Your task to perform on an android device: Open battery settings Image 0: 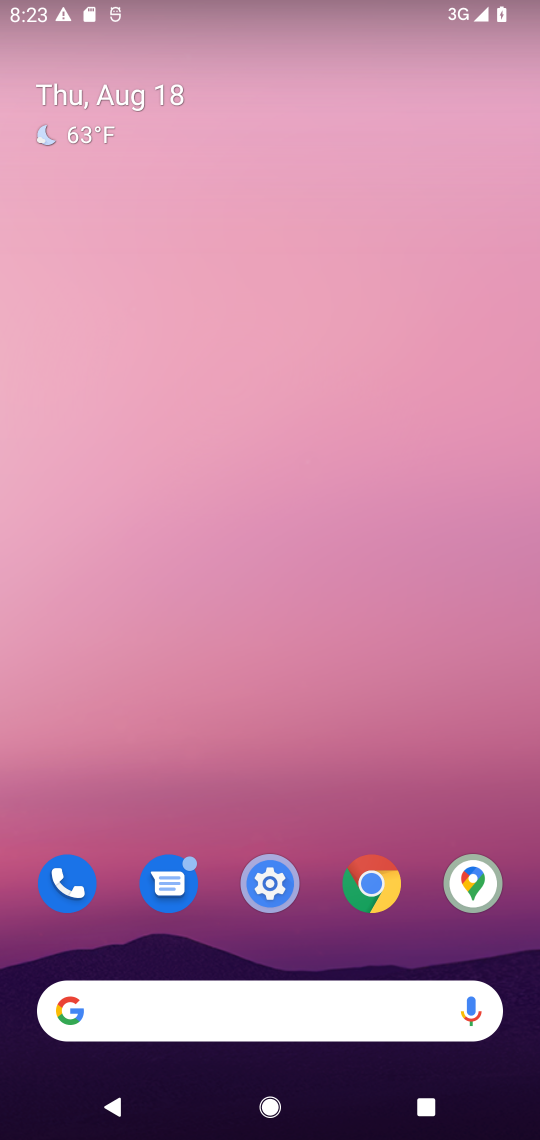
Step 0: drag from (69, 1128) to (373, 394)
Your task to perform on an android device: Open battery settings Image 1: 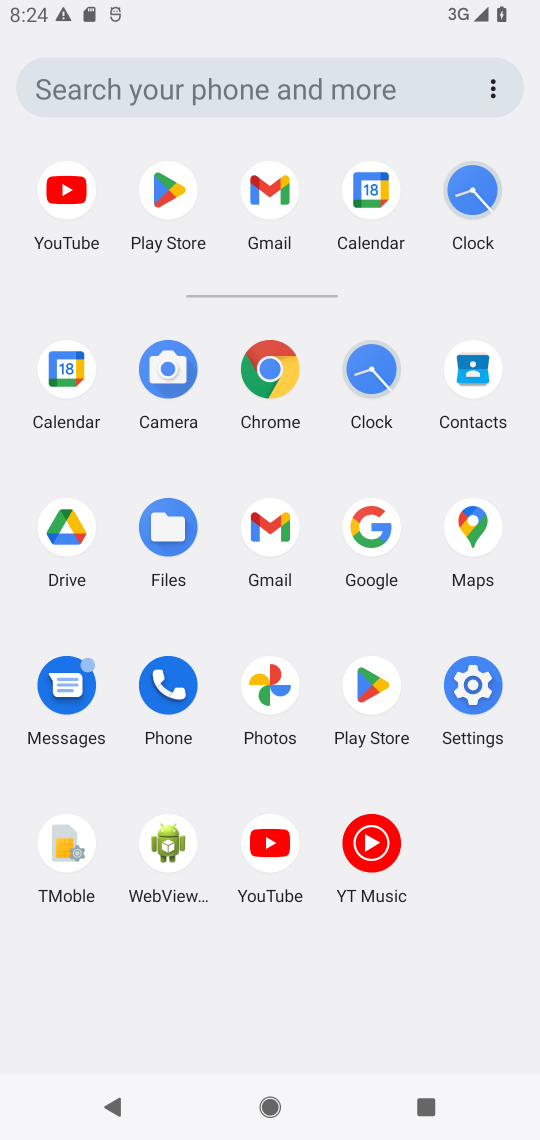
Step 1: click (474, 706)
Your task to perform on an android device: Open battery settings Image 2: 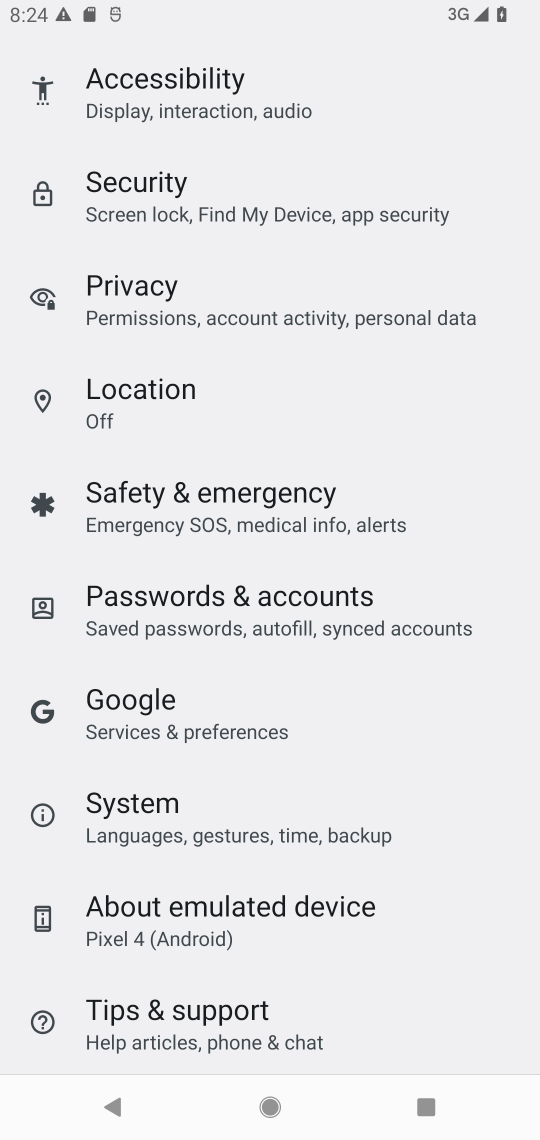
Step 2: drag from (418, 50) to (285, 857)
Your task to perform on an android device: Open battery settings Image 3: 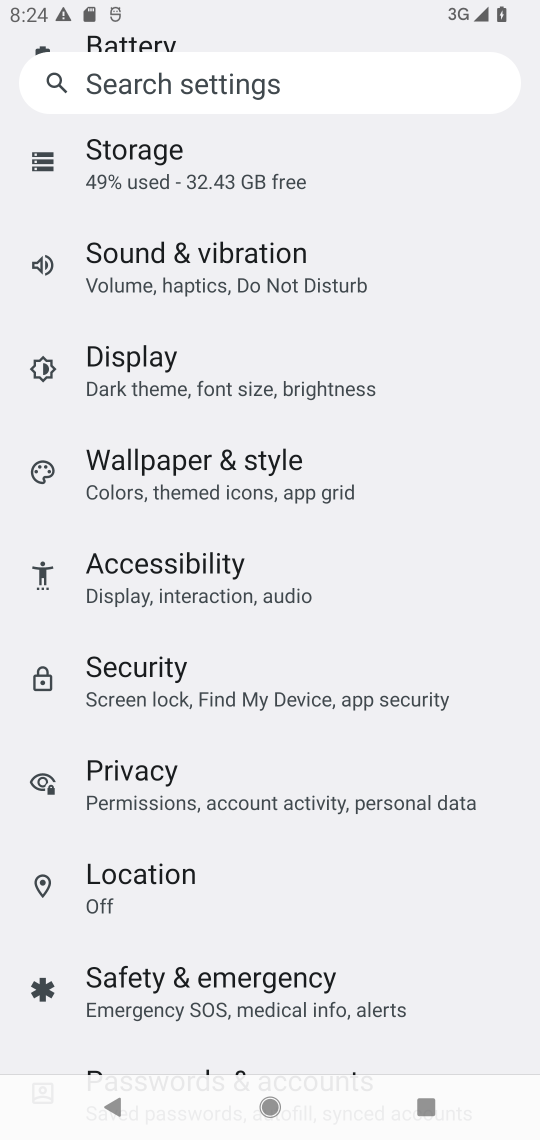
Step 3: drag from (450, 139) to (352, 1071)
Your task to perform on an android device: Open battery settings Image 4: 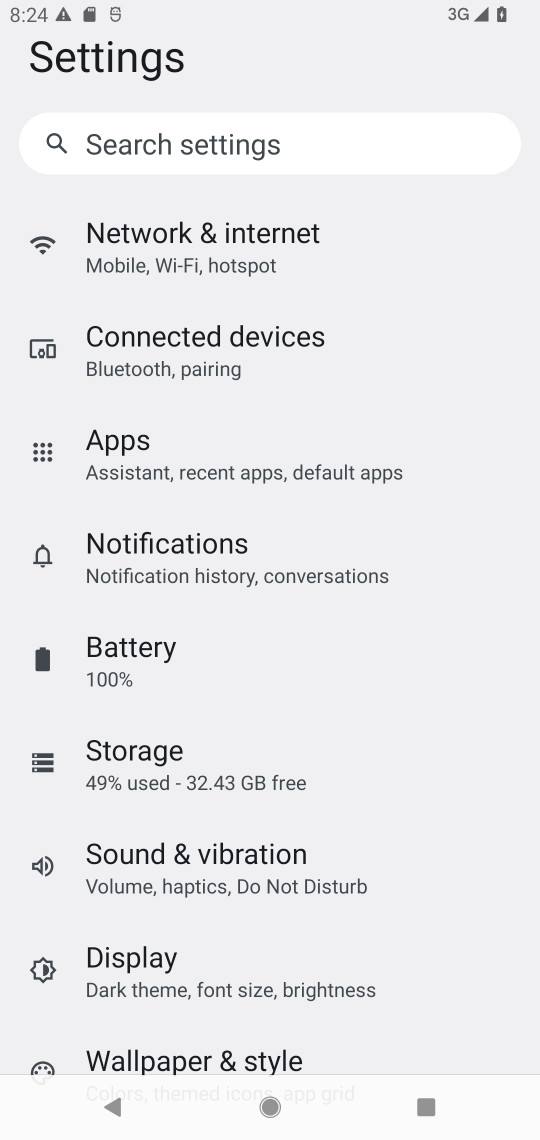
Step 4: click (159, 650)
Your task to perform on an android device: Open battery settings Image 5: 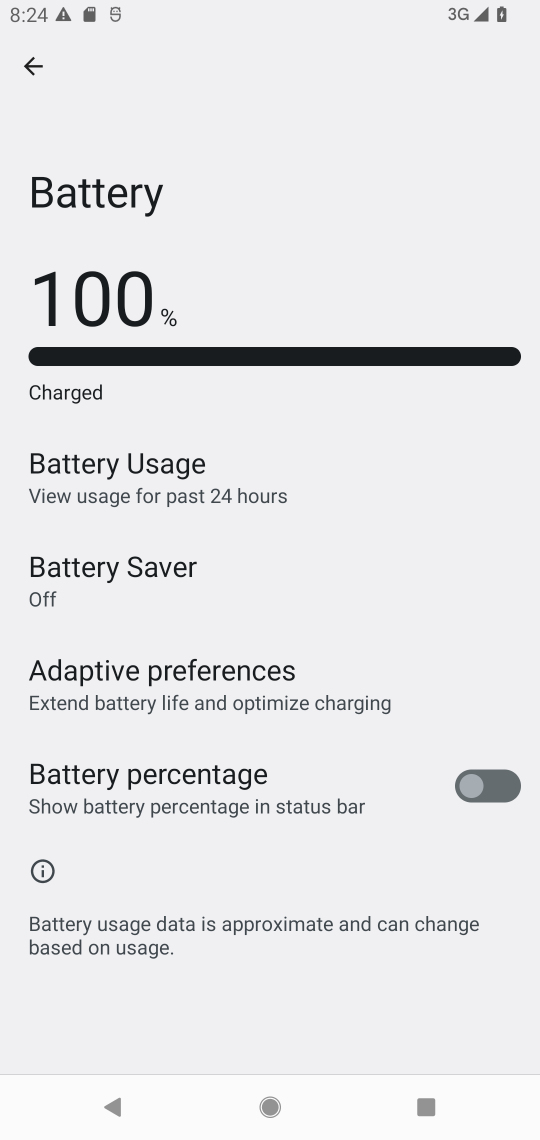
Step 5: task complete